Your task to perform on an android device: find photos in the google photos app Image 0: 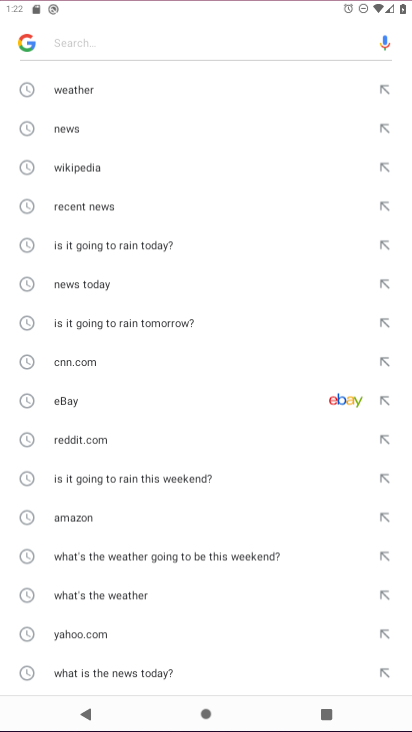
Step 0: press home button
Your task to perform on an android device: find photos in the google photos app Image 1: 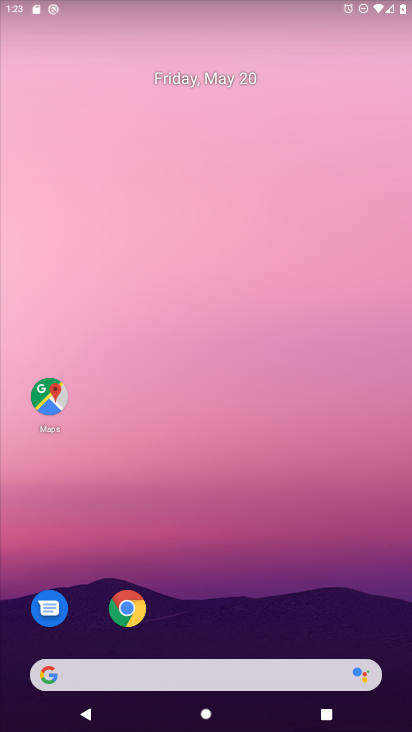
Step 1: drag from (245, 602) to (214, 41)
Your task to perform on an android device: find photos in the google photos app Image 2: 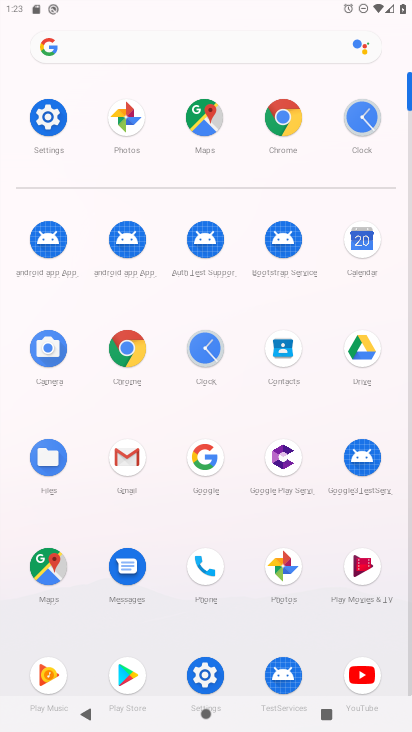
Step 2: click (278, 576)
Your task to perform on an android device: find photos in the google photos app Image 3: 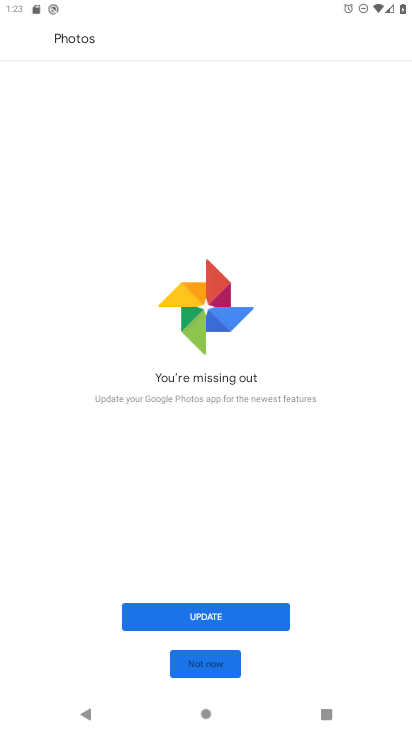
Step 3: click (246, 605)
Your task to perform on an android device: find photos in the google photos app Image 4: 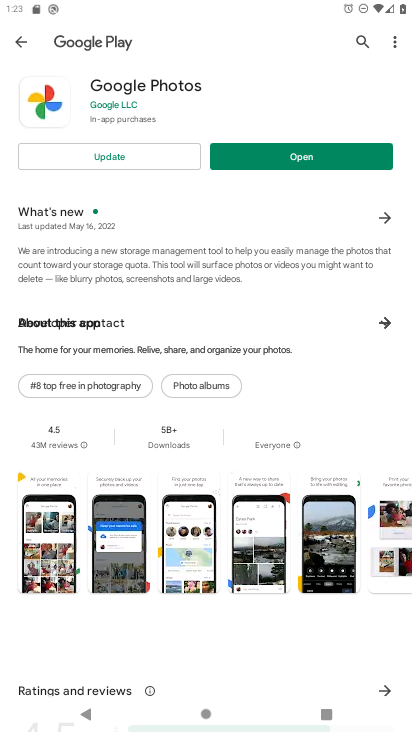
Step 4: click (156, 151)
Your task to perform on an android device: find photos in the google photos app Image 5: 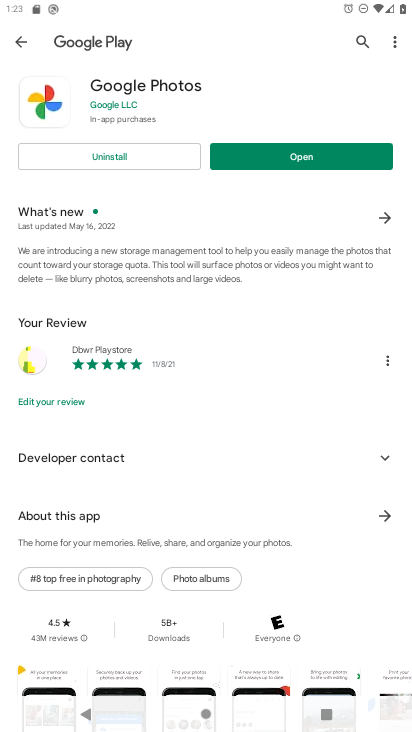
Step 5: click (323, 154)
Your task to perform on an android device: find photos in the google photos app Image 6: 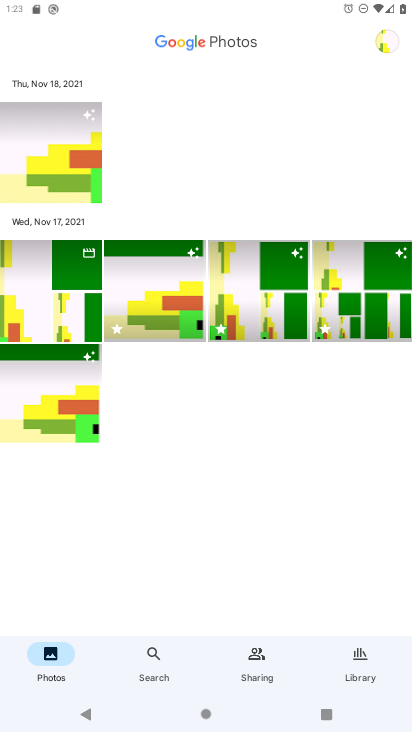
Step 6: task complete